Your task to perform on an android device: Go to ESPN.com Image 0: 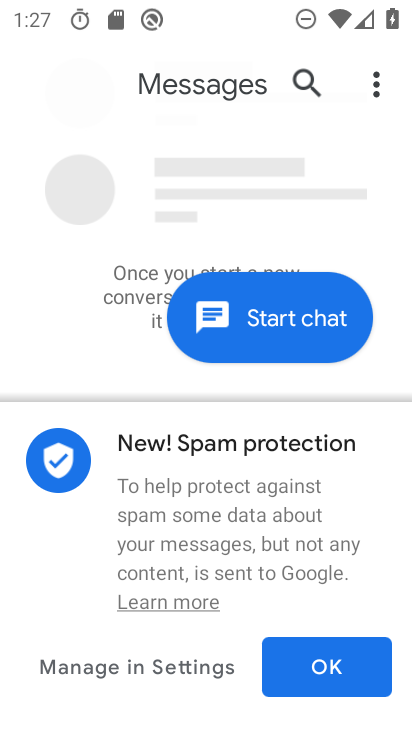
Step 0: press home button
Your task to perform on an android device: Go to ESPN.com Image 1: 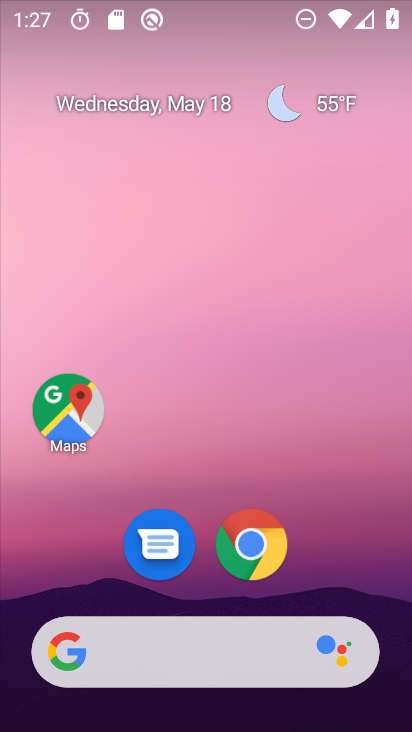
Step 1: drag from (258, 457) to (251, 105)
Your task to perform on an android device: Go to ESPN.com Image 2: 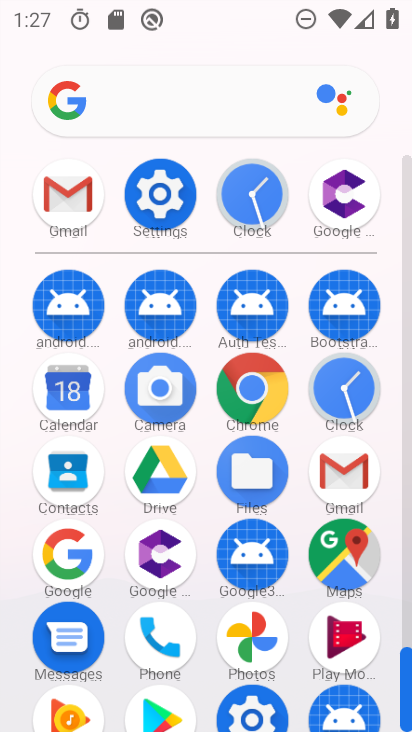
Step 2: click (247, 382)
Your task to perform on an android device: Go to ESPN.com Image 3: 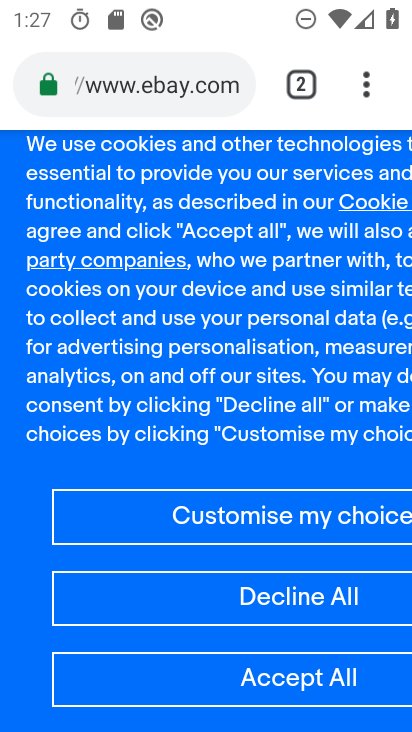
Step 3: click (307, 90)
Your task to perform on an android device: Go to ESPN.com Image 4: 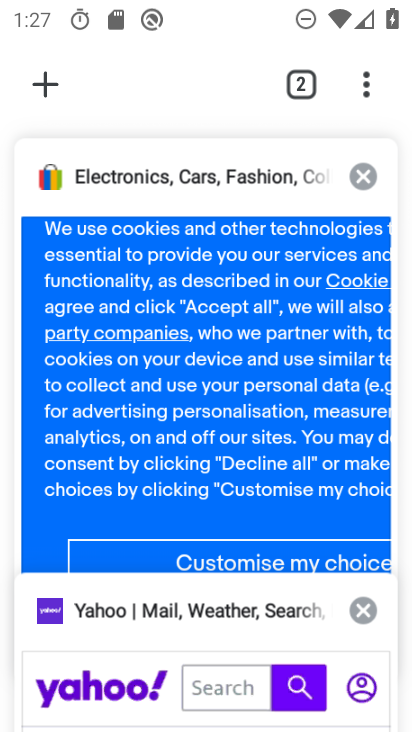
Step 4: click (40, 85)
Your task to perform on an android device: Go to ESPN.com Image 5: 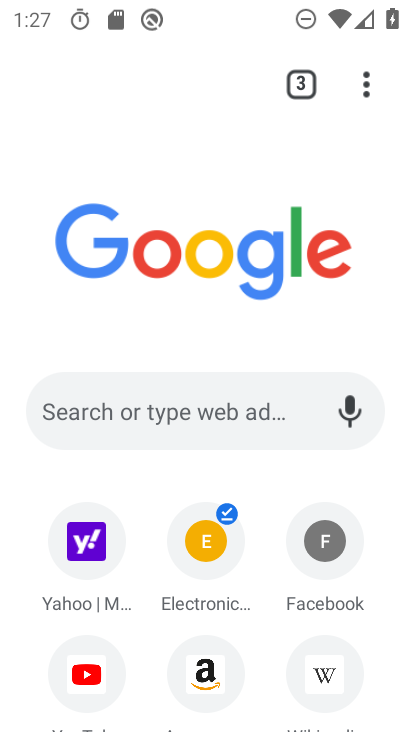
Step 5: click (207, 425)
Your task to perform on an android device: Go to ESPN.com Image 6: 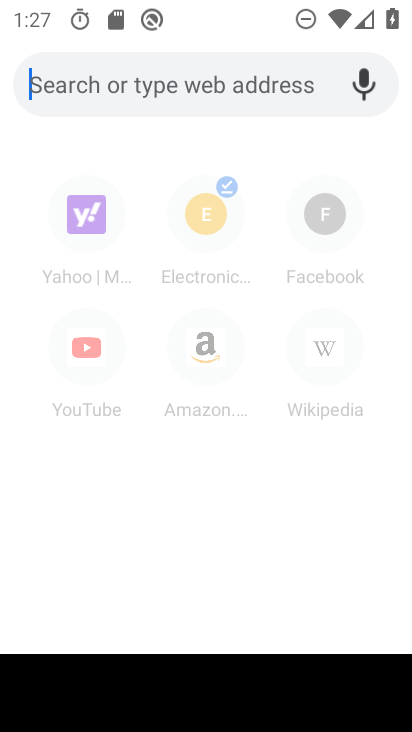
Step 6: type "ESPN.com"
Your task to perform on an android device: Go to ESPN.com Image 7: 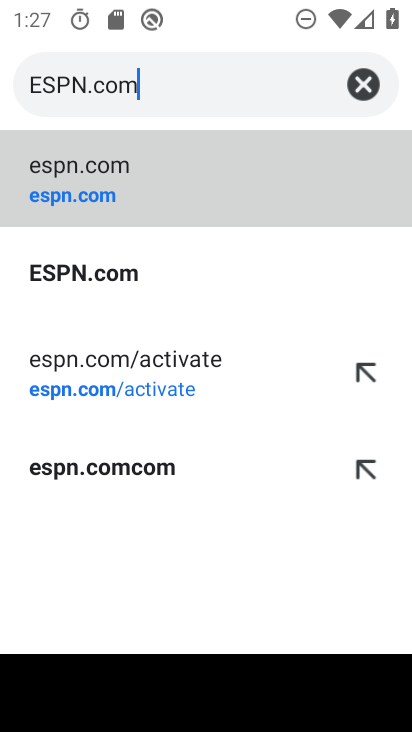
Step 7: click (107, 199)
Your task to perform on an android device: Go to ESPN.com Image 8: 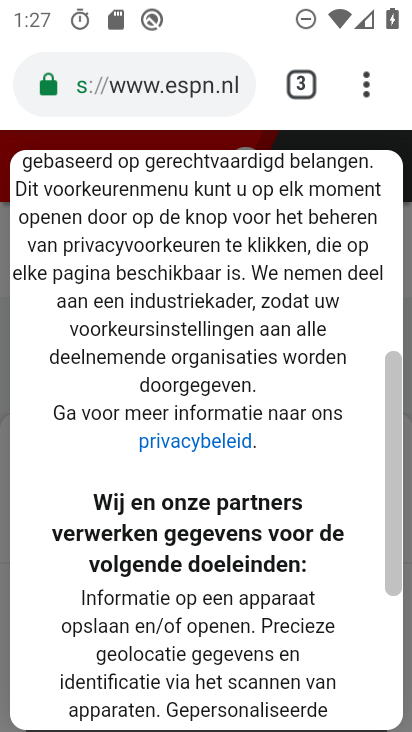
Step 8: task complete